Your task to perform on an android device: Go to accessibility settings Image 0: 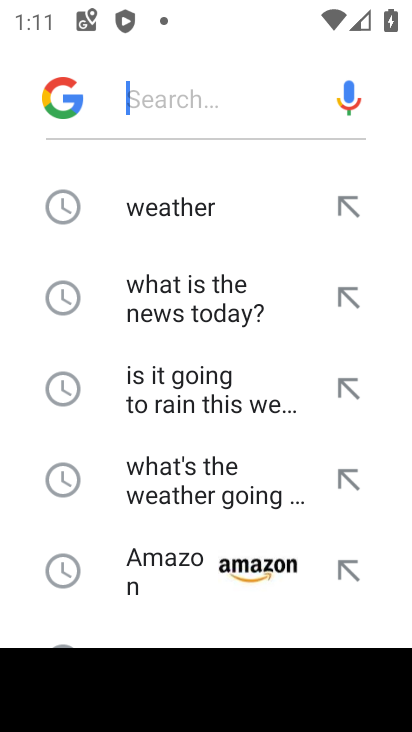
Step 0: press home button
Your task to perform on an android device: Go to accessibility settings Image 1: 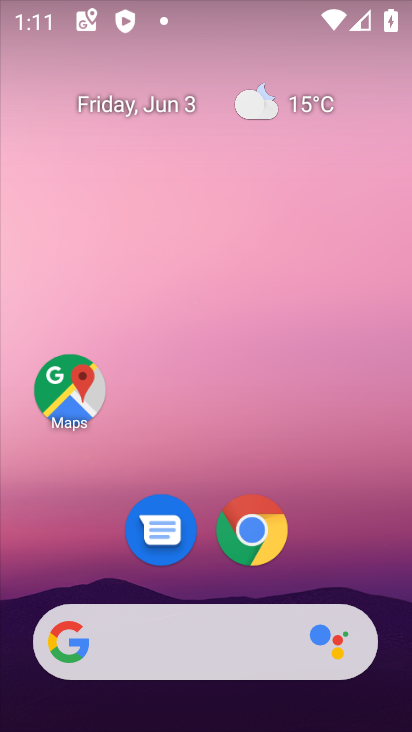
Step 1: drag from (341, 509) to (338, 77)
Your task to perform on an android device: Go to accessibility settings Image 2: 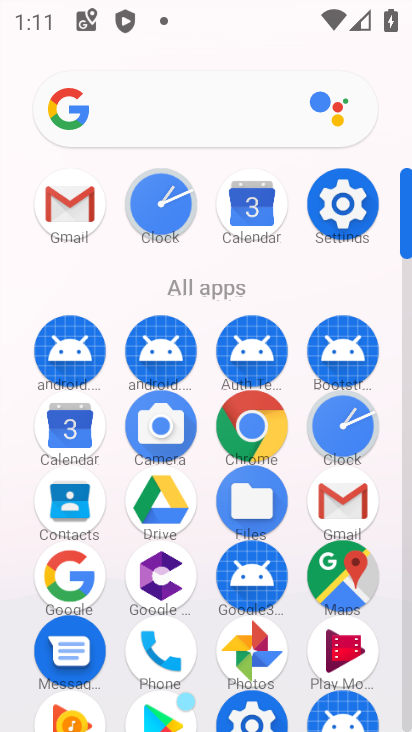
Step 2: click (339, 221)
Your task to perform on an android device: Go to accessibility settings Image 3: 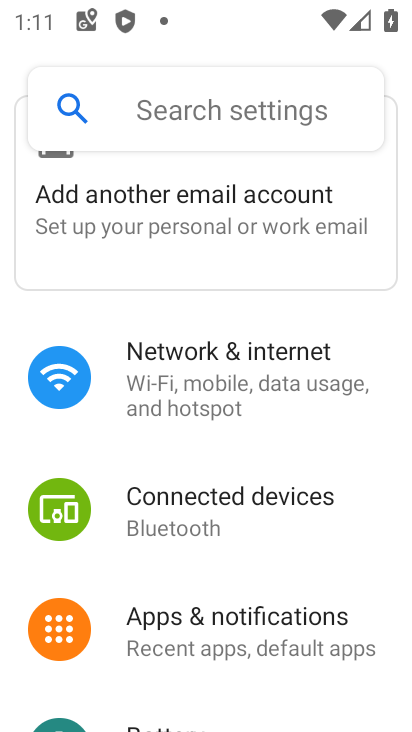
Step 3: drag from (109, 682) to (220, 0)
Your task to perform on an android device: Go to accessibility settings Image 4: 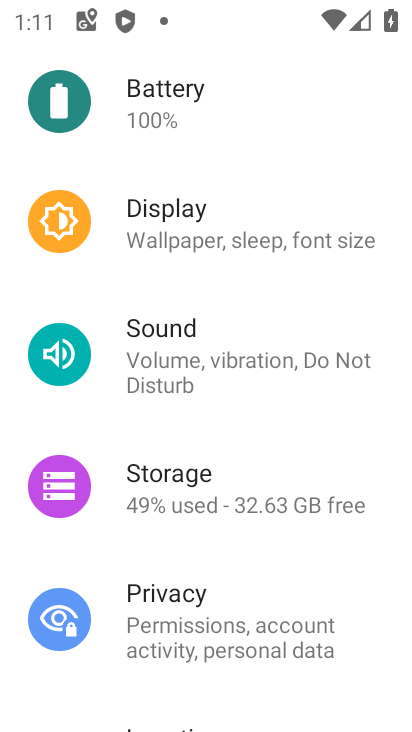
Step 4: drag from (102, 688) to (173, 68)
Your task to perform on an android device: Go to accessibility settings Image 5: 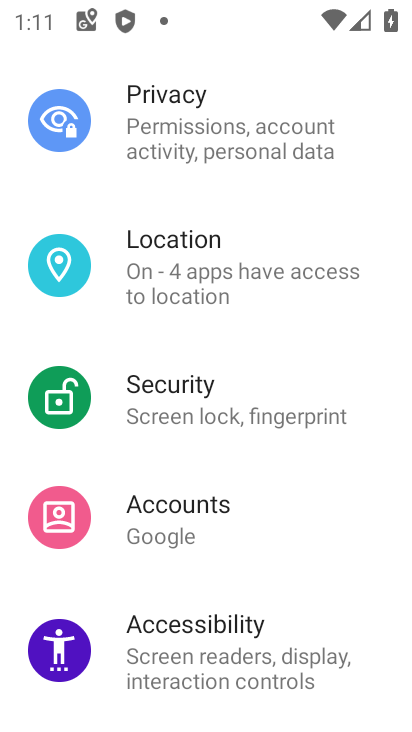
Step 5: click (188, 666)
Your task to perform on an android device: Go to accessibility settings Image 6: 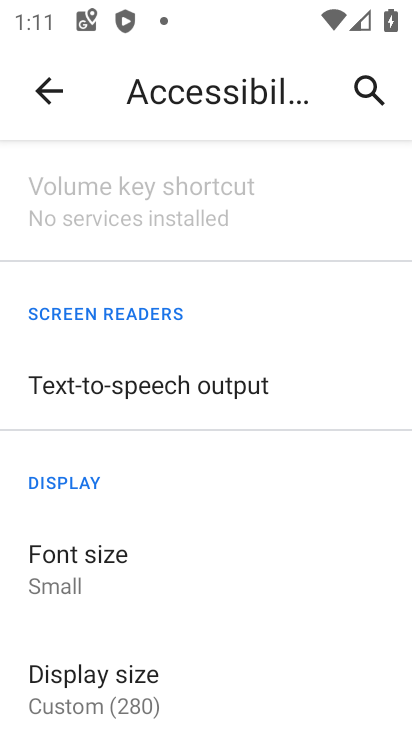
Step 6: task complete